Your task to perform on an android device: all mails in gmail Image 0: 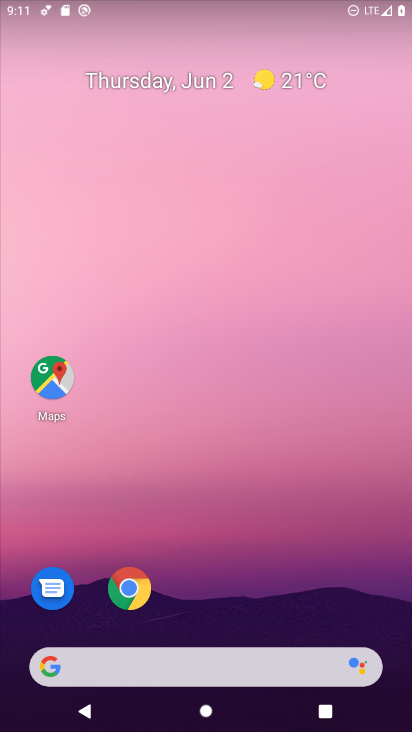
Step 0: drag from (223, 616) to (222, 241)
Your task to perform on an android device: all mails in gmail Image 1: 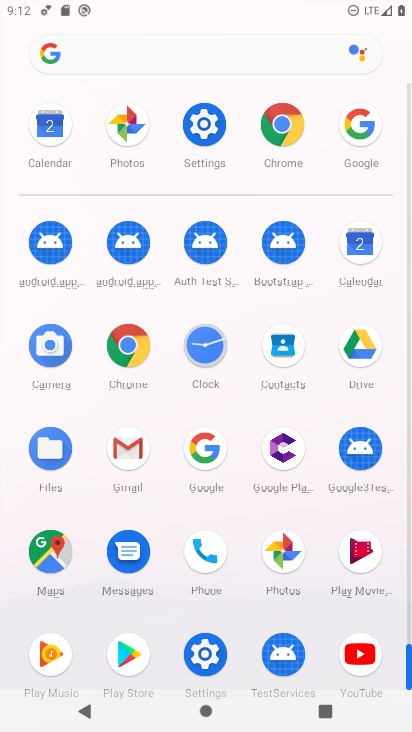
Step 1: click (143, 458)
Your task to perform on an android device: all mails in gmail Image 2: 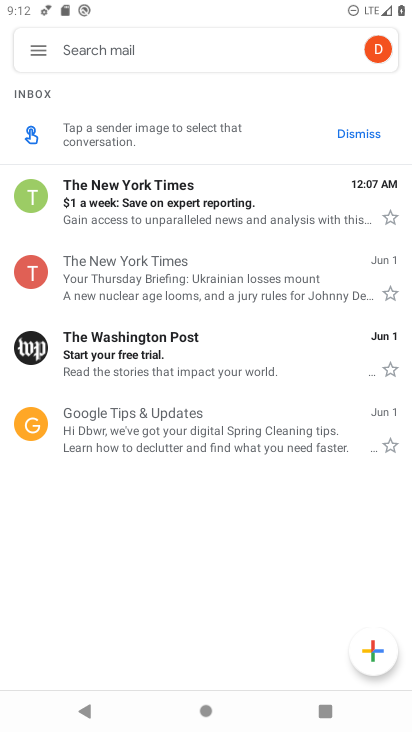
Step 2: click (45, 46)
Your task to perform on an android device: all mails in gmail Image 3: 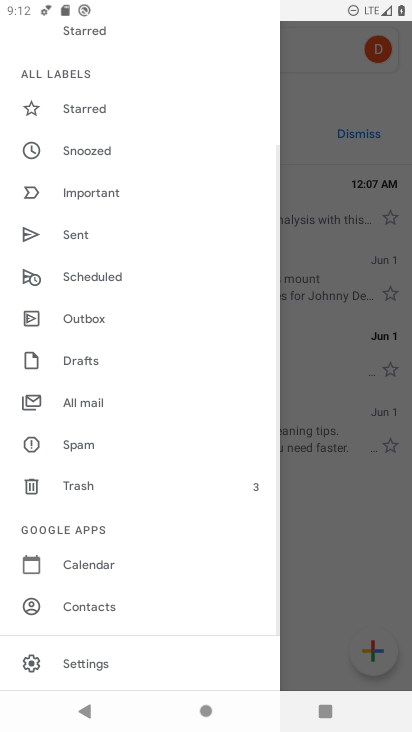
Step 3: click (148, 403)
Your task to perform on an android device: all mails in gmail Image 4: 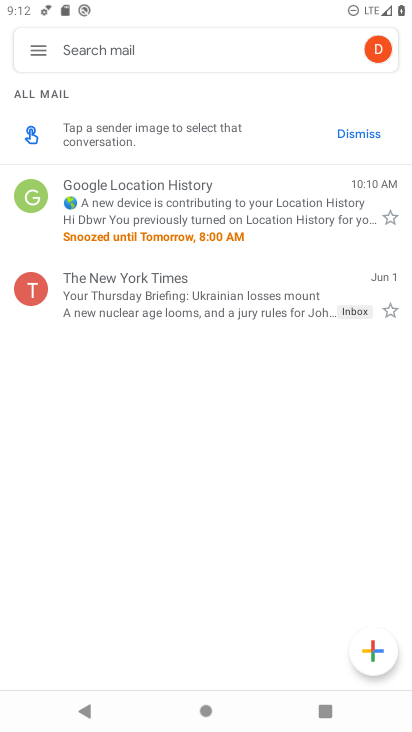
Step 4: task complete